Your task to perform on an android device: turn on priority inbox in the gmail app Image 0: 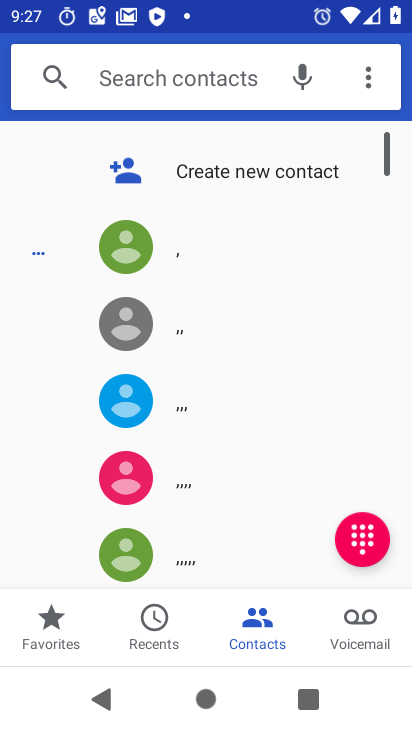
Step 0: press home button
Your task to perform on an android device: turn on priority inbox in the gmail app Image 1: 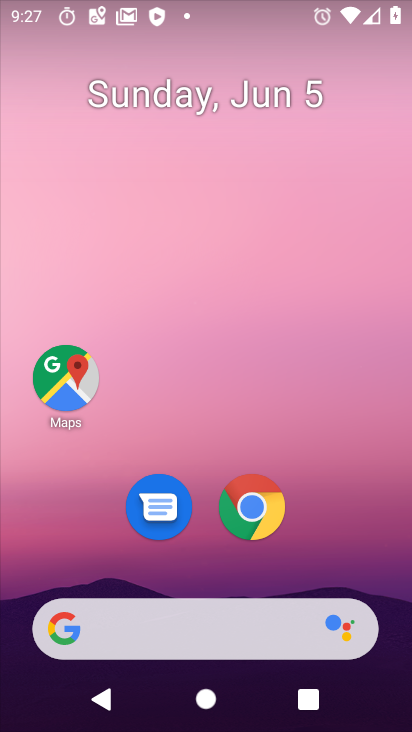
Step 1: drag from (253, 641) to (207, 144)
Your task to perform on an android device: turn on priority inbox in the gmail app Image 2: 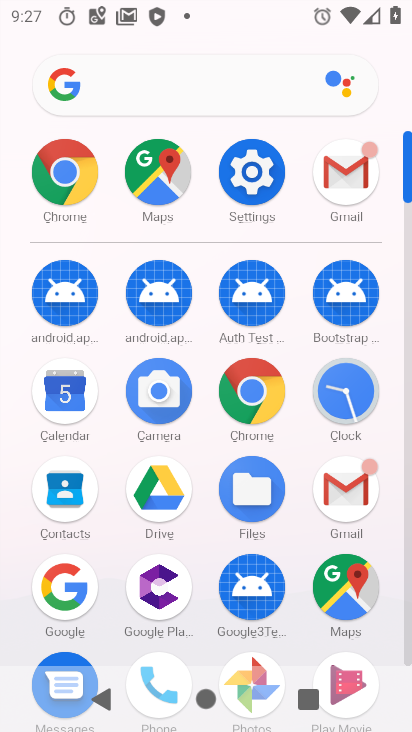
Step 2: click (344, 174)
Your task to perform on an android device: turn on priority inbox in the gmail app Image 3: 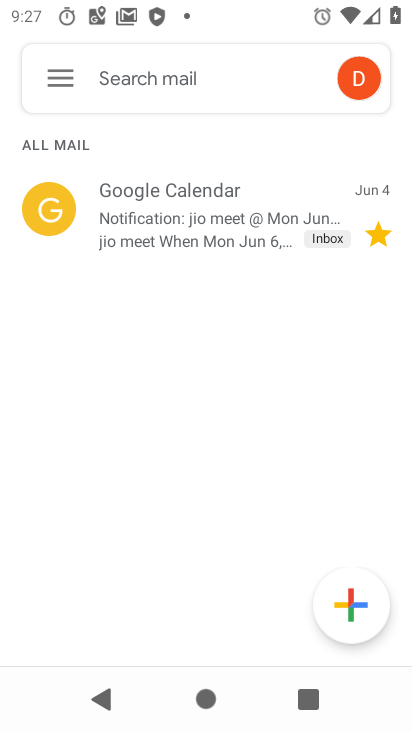
Step 3: click (46, 93)
Your task to perform on an android device: turn on priority inbox in the gmail app Image 4: 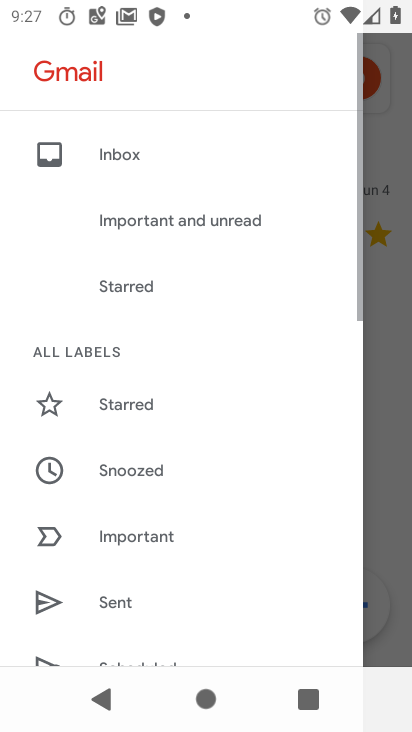
Step 4: drag from (141, 611) to (233, 297)
Your task to perform on an android device: turn on priority inbox in the gmail app Image 5: 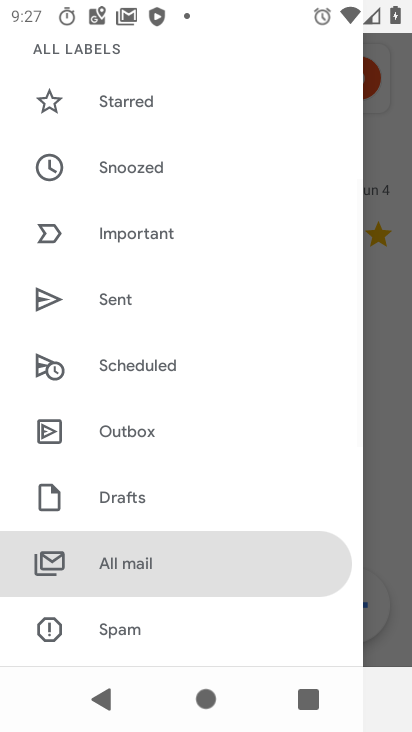
Step 5: drag from (166, 568) to (214, 333)
Your task to perform on an android device: turn on priority inbox in the gmail app Image 6: 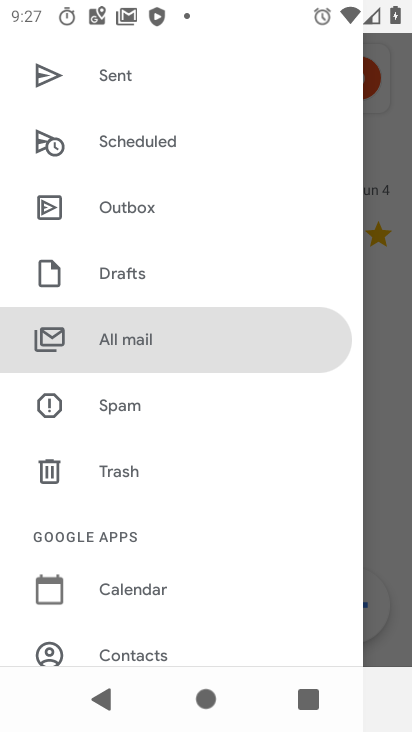
Step 6: drag from (137, 586) to (194, 451)
Your task to perform on an android device: turn on priority inbox in the gmail app Image 7: 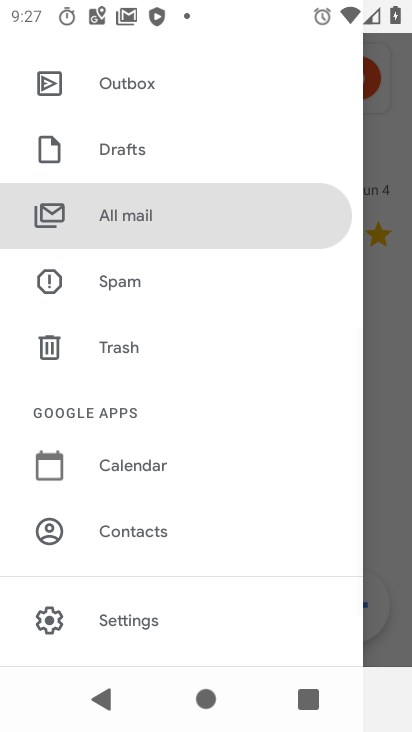
Step 7: click (132, 615)
Your task to perform on an android device: turn on priority inbox in the gmail app Image 8: 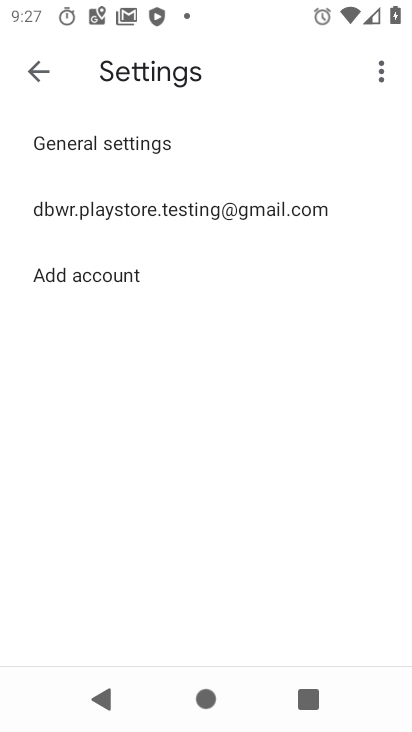
Step 8: click (72, 218)
Your task to perform on an android device: turn on priority inbox in the gmail app Image 9: 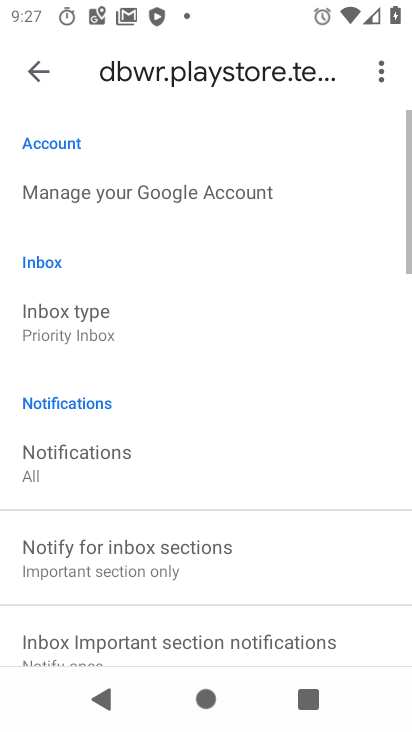
Step 9: click (130, 334)
Your task to perform on an android device: turn on priority inbox in the gmail app Image 10: 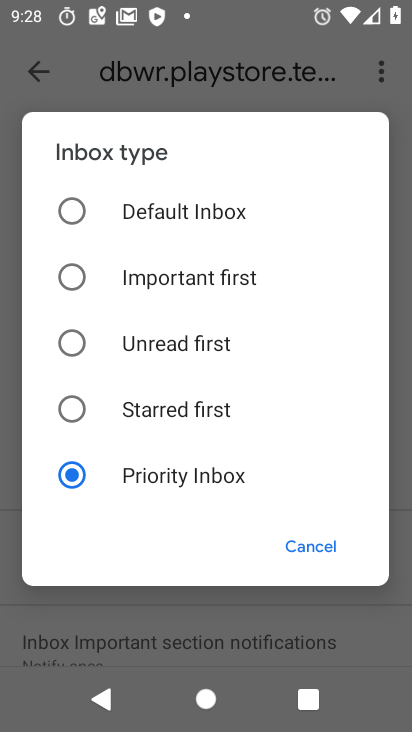
Step 10: task complete